Your task to perform on an android device: Open Youtube and go to "Your channel" Image 0: 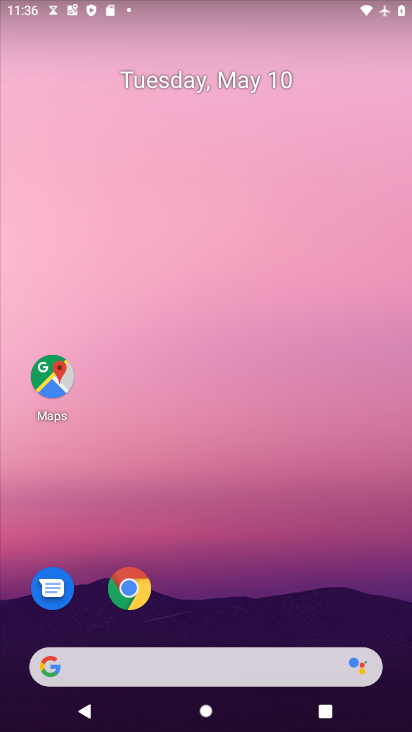
Step 0: drag from (300, 545) to (234, 96)
Your task to perform on an android device: Open Youtube and go to "Your channel" Image 1: 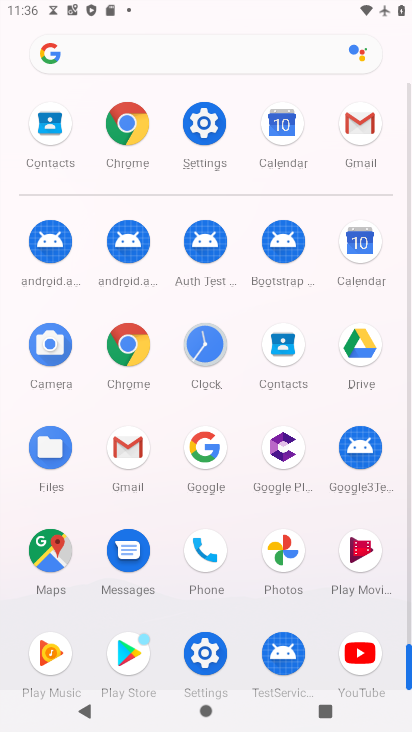
Step 1: click (344, 640)
Your task to perform on an android device: Open Youtube and go to "Your channel" Image 2: 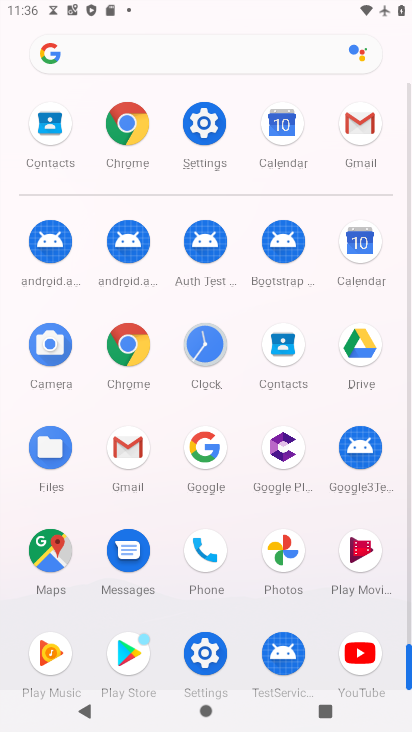
Step 2: click (344, 640)
Your task to perform on an android device: Open Youtube and go to "Your channel" Image 3: 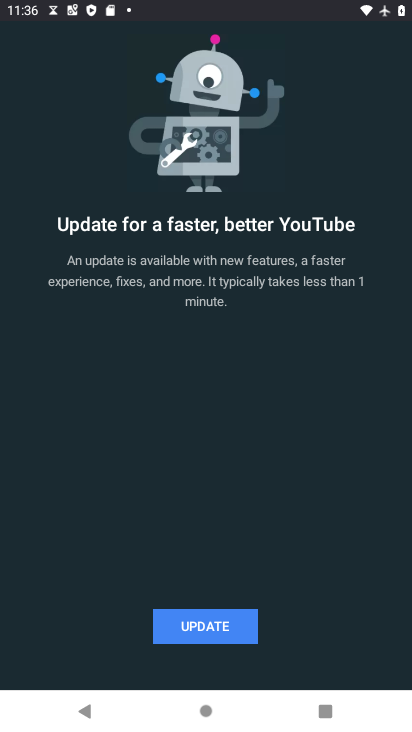
Step 3: click (212, 623)
Your task to perform on an android device: Open Youtube and go to "Your channel" Image 4: 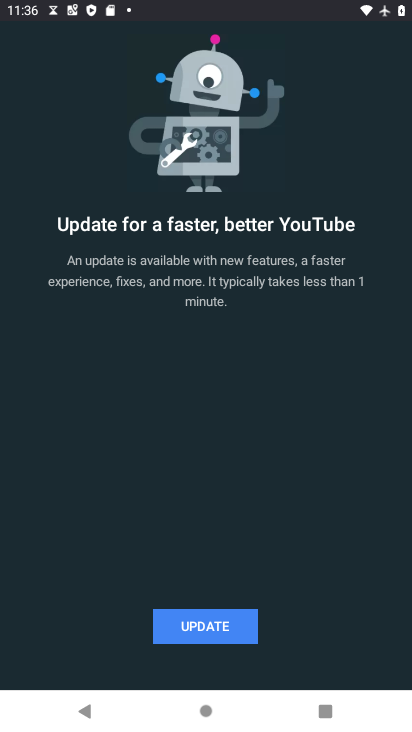
Step 4: click (213, 621)
Your task to perform on an android device: Open Youtube and go to "Your channel" Image 5: 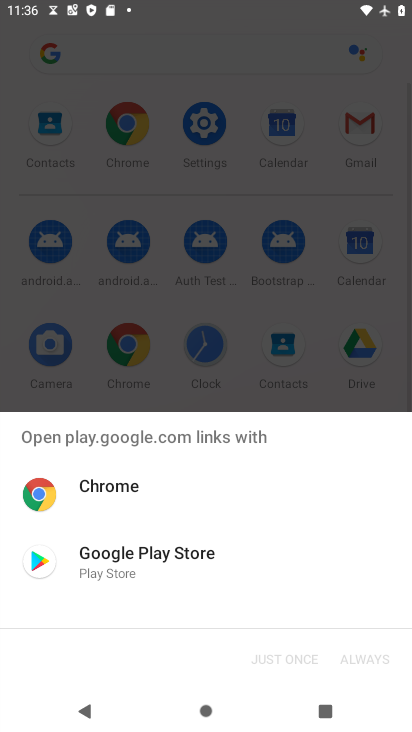
Step 5: click (154, 546)
Your task to perform on an android device: Open Youtube and go to "Your channel" Image 6: 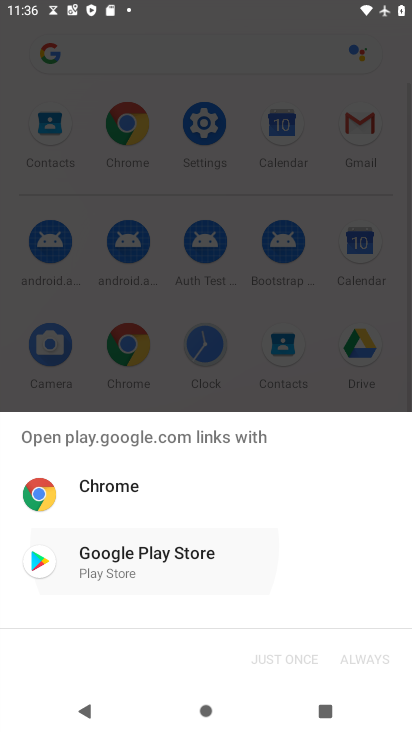
Step 6: click (154, 546)
Your task to perform on an android device: Open Youtube and go to "Your channel" Image 7: 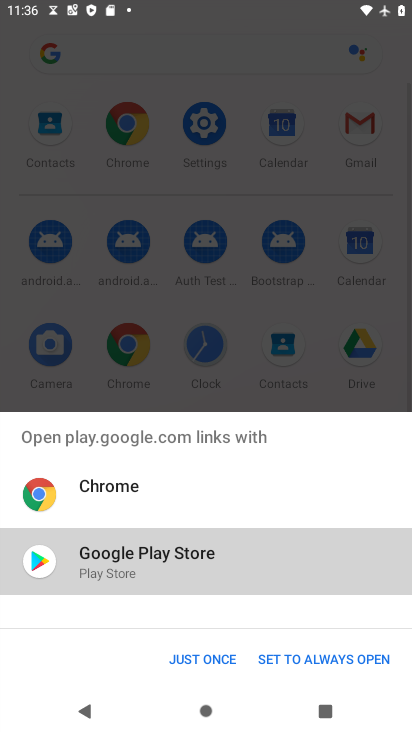
Step 7: click (154, 546)
Your task to perform on an android device: Open Youtube and go to "Your channel" Image 8: 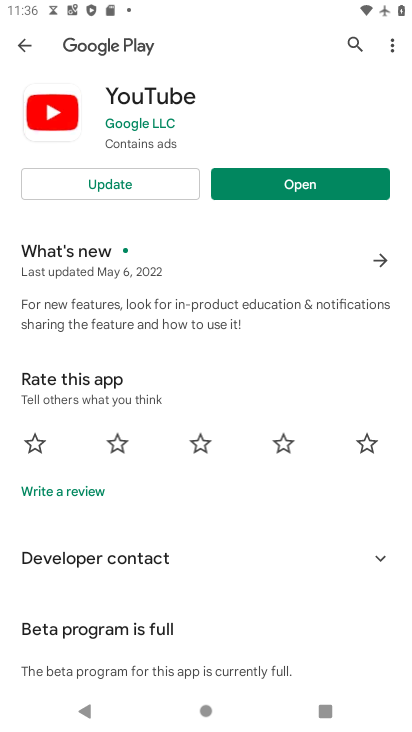
Step 8: click (282, 184)
Your task to perform on an android device: Open Youtube and go to "Your channel" Image 9: 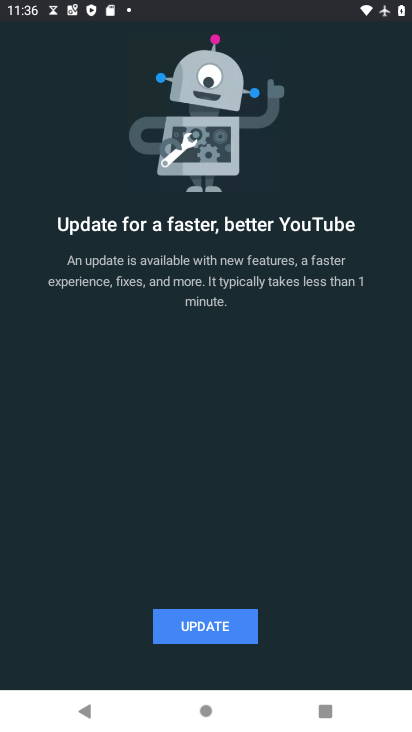
Step 9: click (186, 626)
Your task to perform on an android device: Open Youtube and go to "Your channel" Image 10: 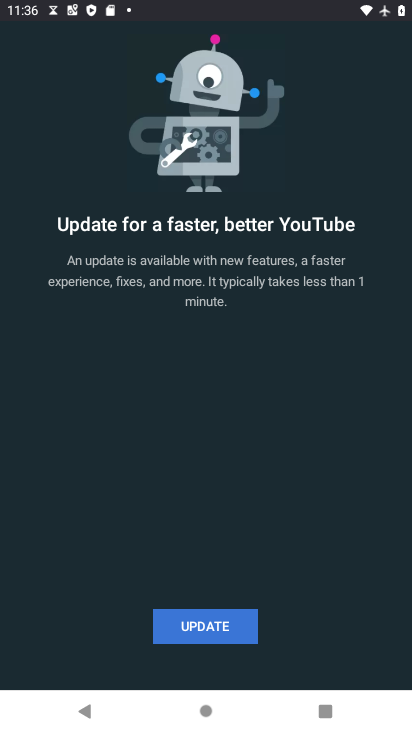
Step 10: click (187, 625)
Your task to perform on an android device: Open Youtube and go to "Your channel" Image 11: 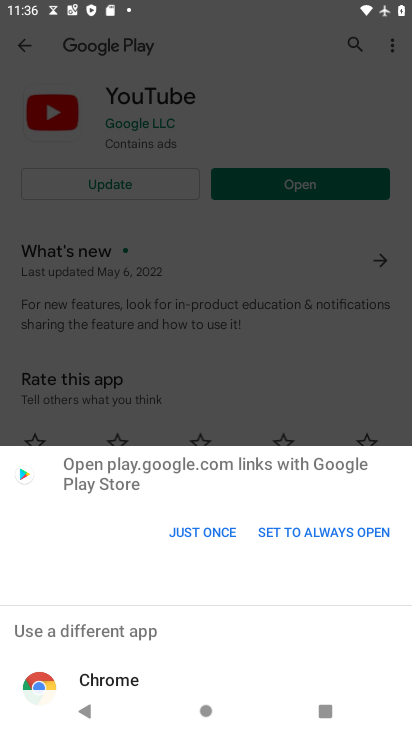
Step 11: click (322, 178)
Your task to perform on an android device: Open Youtube and go to "Your channel" Image 12: 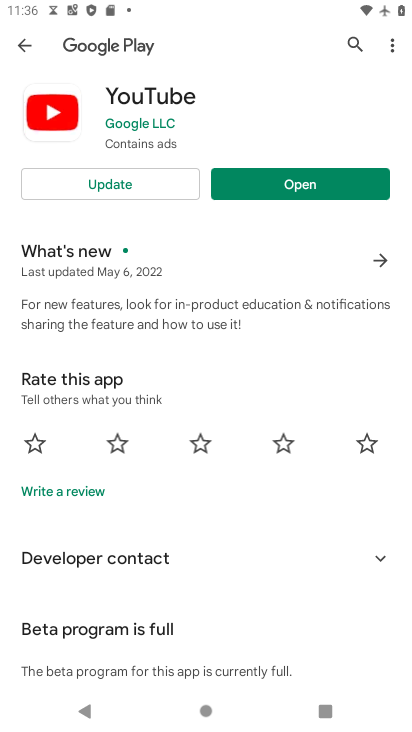
Step 12: click (78, 183)
Your task to perform on an android device: Open Youtube and go to "Your channel" Image 13: 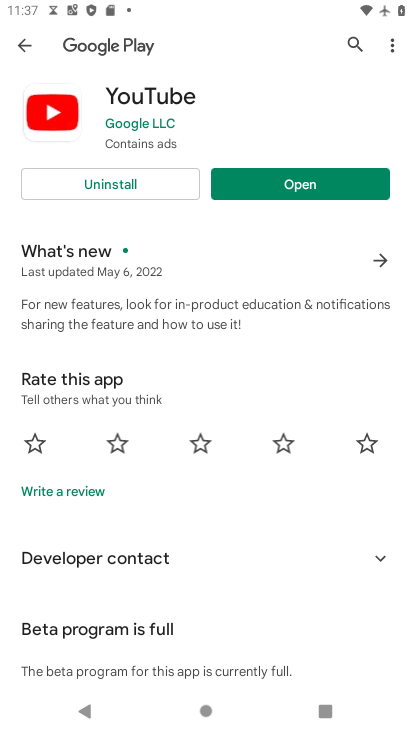
Step 13: click (314, 183)
Your task to perform on an android device: Open Youtube and go to "Your channel" Image 14: 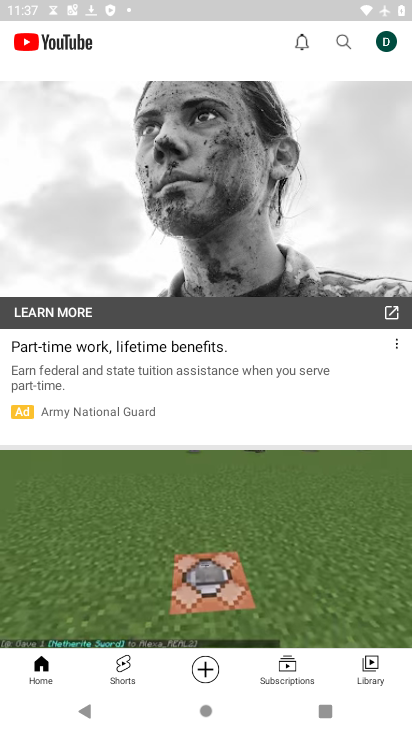
Step 14: task complete